Your task to perform on an android device: check battery use Image 0: 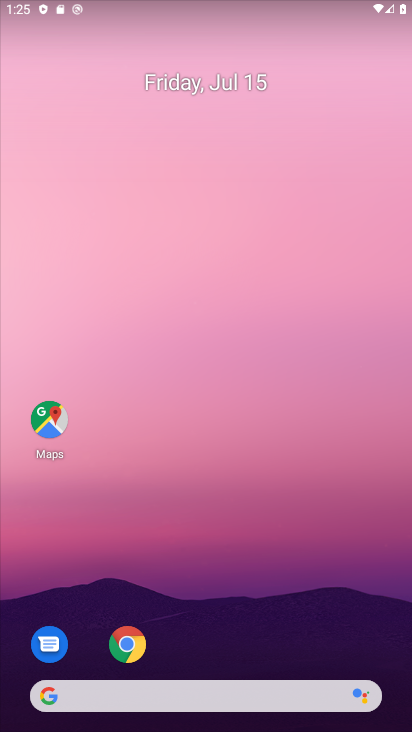
Step 0: drag from (326, 429) to (254, 37)
Your task to perform on an android device: check battery use Image 1: 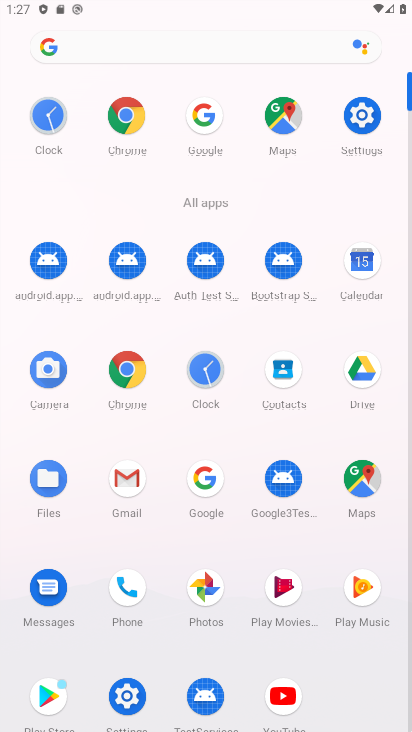
Step 1: click (120, 689)
Your task to perform on an android device: check battery use Image 2: 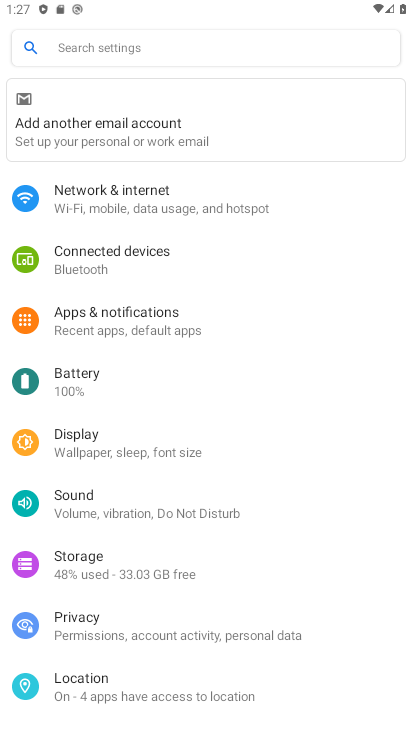
Step 2: click (102, 366)
Your task to perform on an android device: check battery use Image 3: 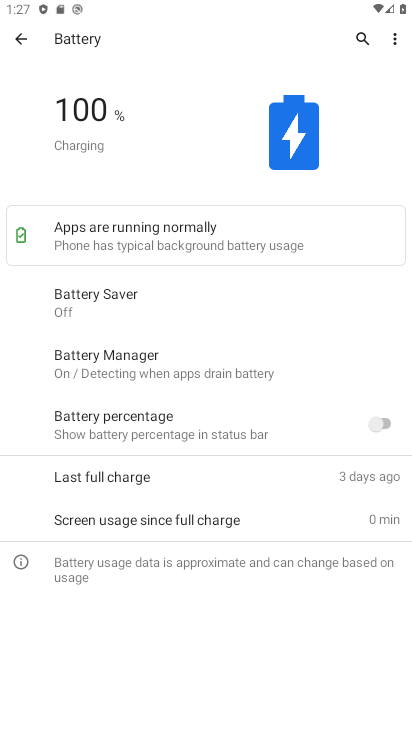
Step 3: click (399, 39)
Your task to perform on an android device: check battery use Image 4: 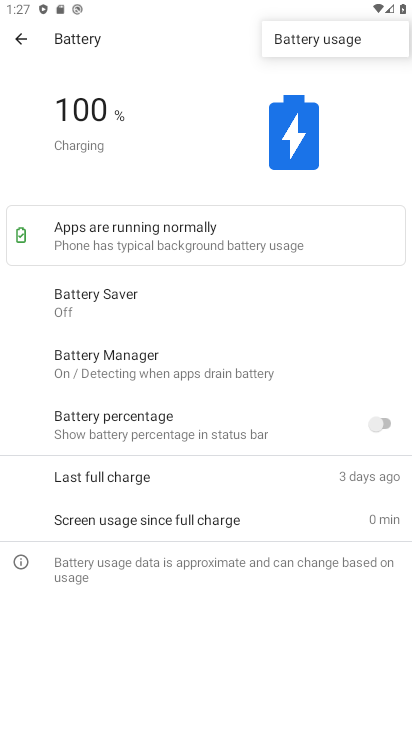
Step 4: click (328, 43)
Your task to perform on an android device: check battery use Image 5: 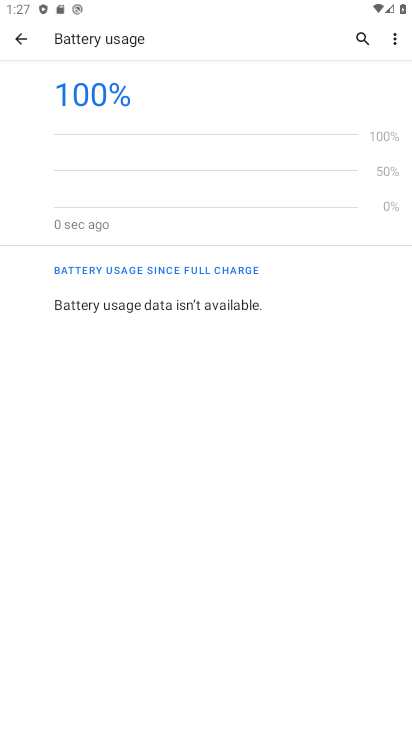
Step 5: task complete